Your task to perform on an android device: Open Yahoo.com Image 0: 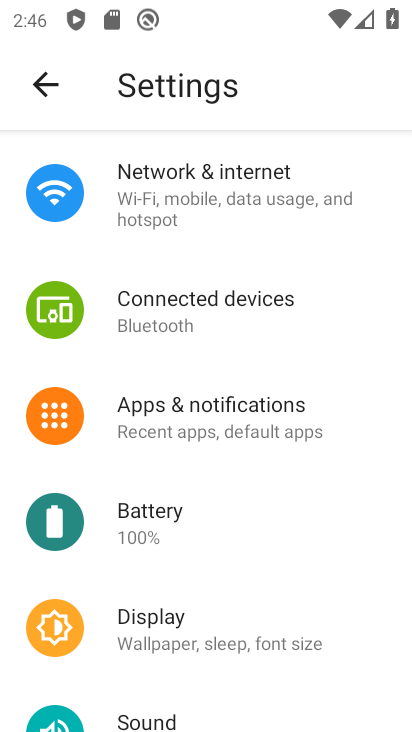
Step 0: press home button
Your task to perform on an android device: Open Yahoo.com Image 1: 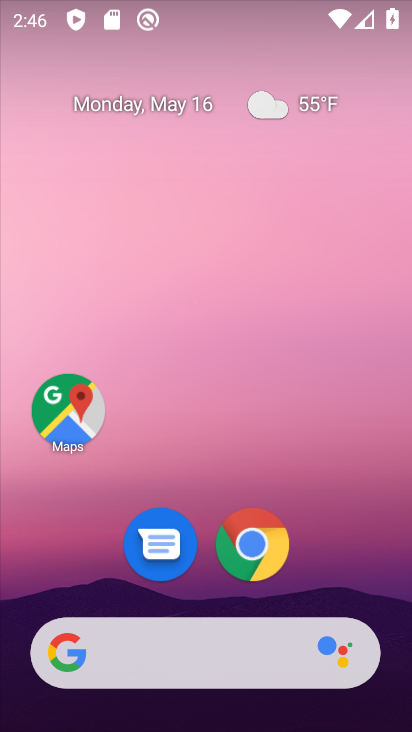
Step 1: drag from (350, 533) to (250, 176)
Your task to perform on an android device: Open Yahoo.com Image 2: 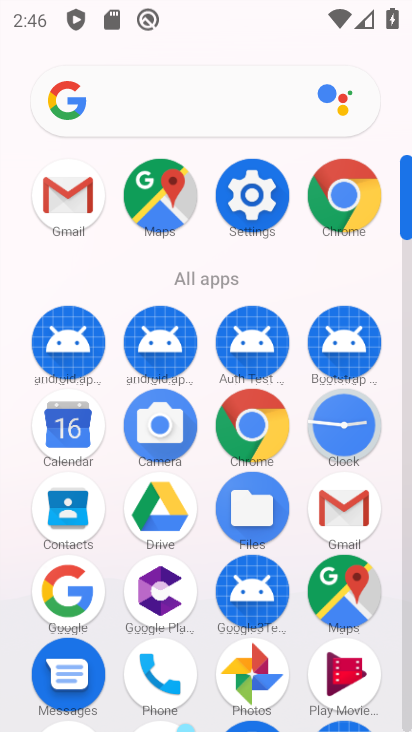
Step 2: click (338, 212)
Your task to perform on an android device: Open Yahoo.com Image 3: 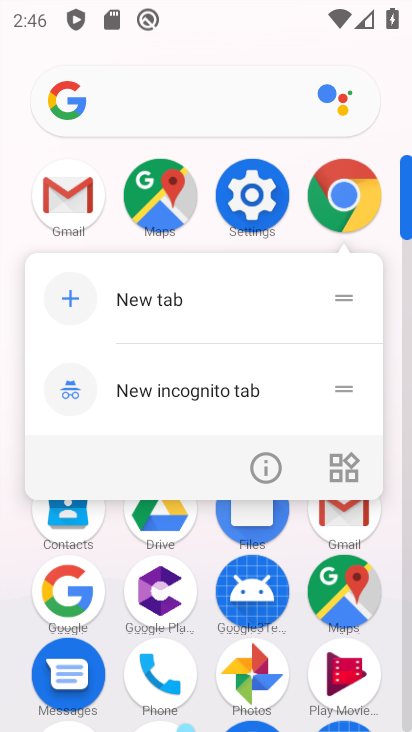
Step 3: click (338, 212)
Your task to perform on an android device: Open Yahoo.com Image 4: 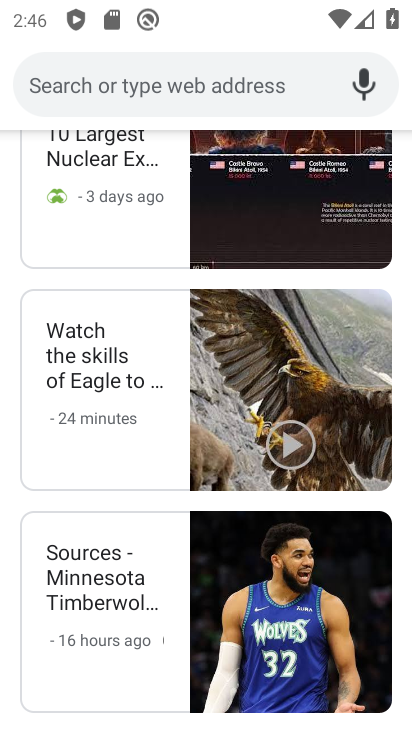
Step 4: click (195, 91)
Your task to perform on an android device: Open Yahoo.com Image 5: 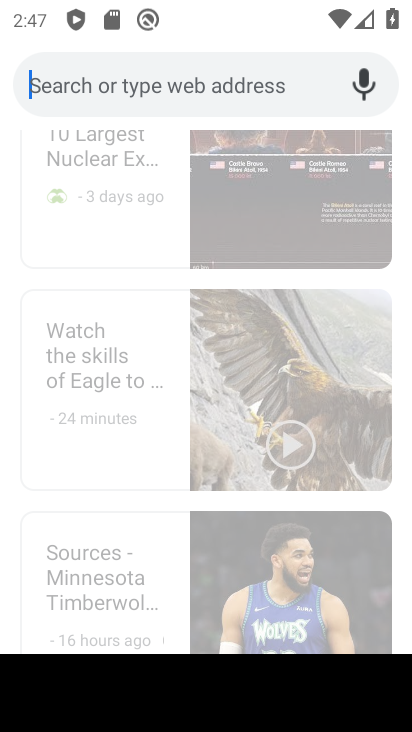
Step 5: type "yahoo.com"
Your task to perform on an android device: Open Yahoo.com Image 6: 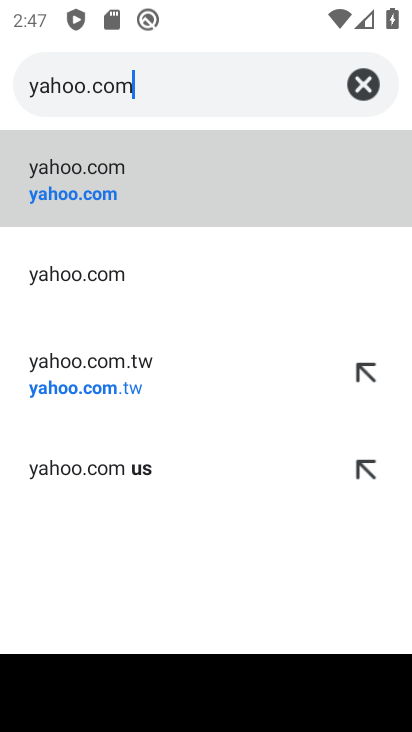
Step 6: click (172, 198)
Your task to perform on an android device: Open Yahoo.com Image 7: 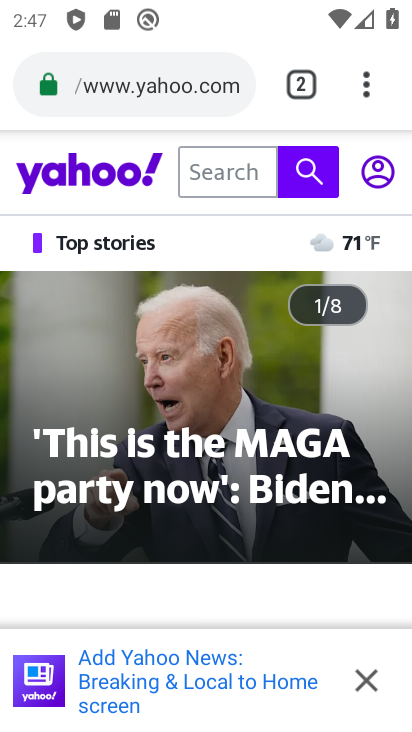
Step 7: task complete